Your task to perform on an android device: turn pop-ups on in chrome Image 0: 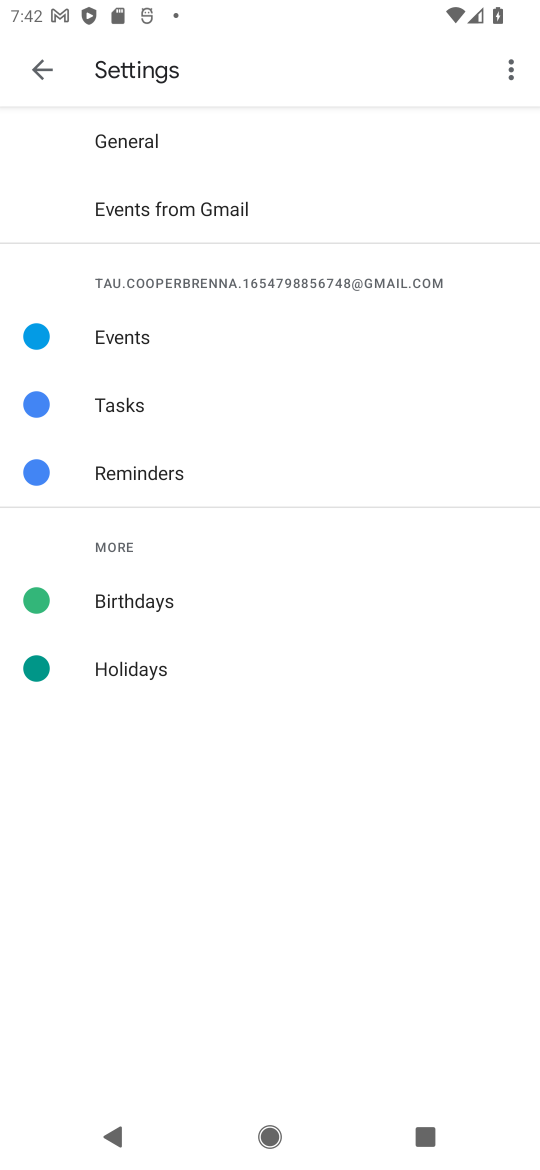
Step 0: press home button
Your task to perform on an android device: turn pop-ups on in chrome Image 1: 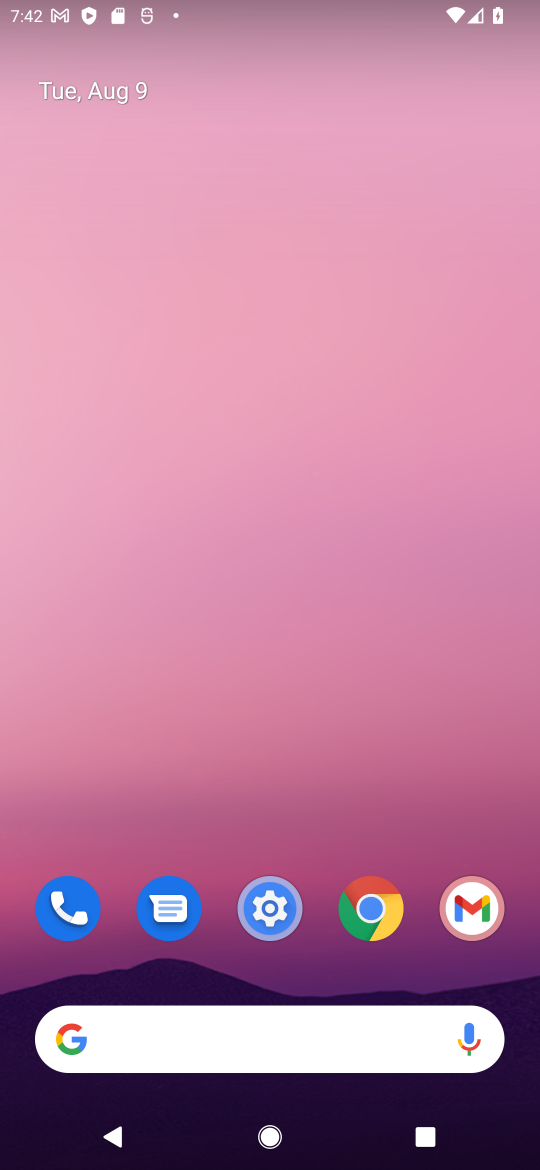
Step 1: click (372, 922)
Your task to perform on an android device: turn pop-ups on in chrome Image 2: 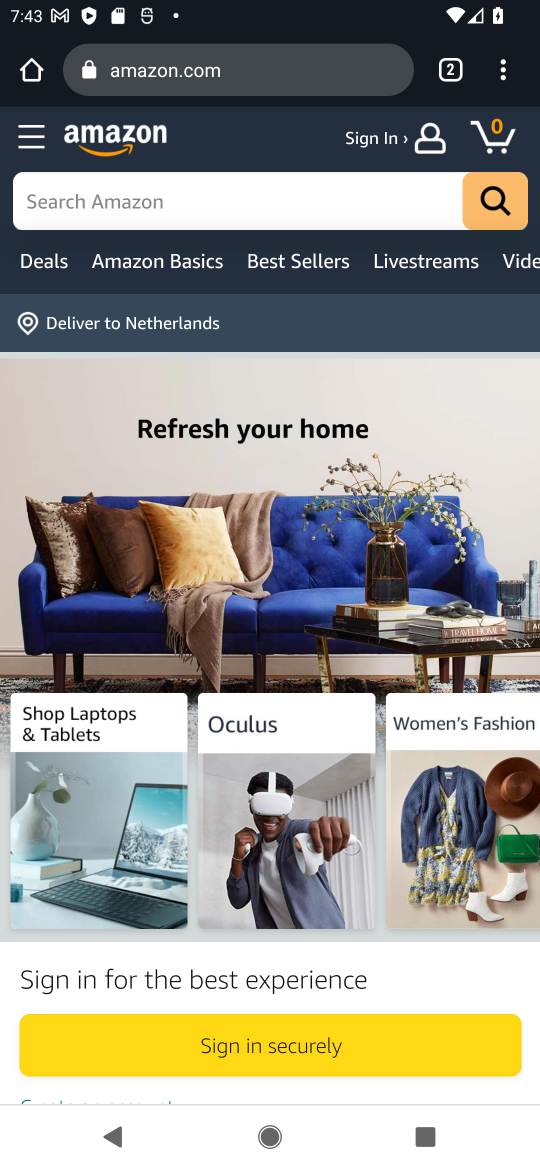
Step 2: click (502, 79)
Your task to perform on an android device: turn pop-ups on in chrome Image 3: 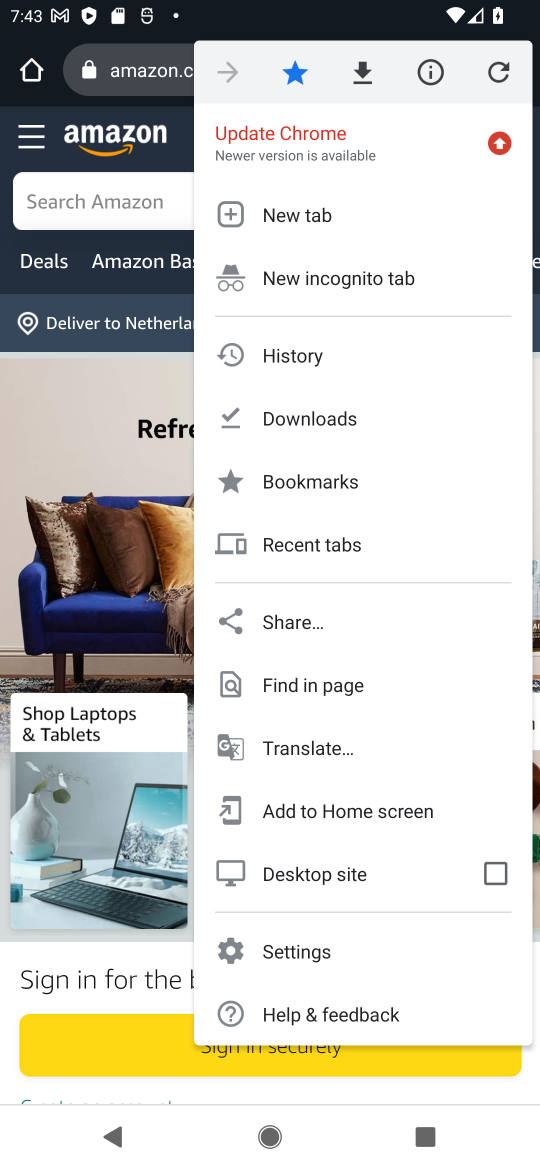
Step 3: click (299, 954)
Your task to perform on an android device: turn pop-ups on in chrome Image 4: 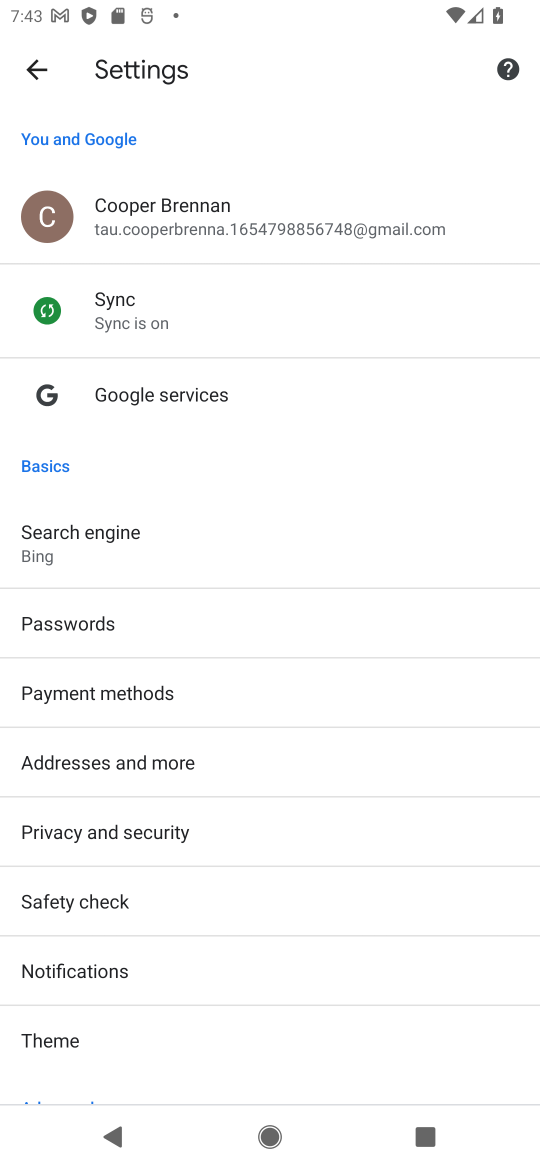
Step 4: drag from (110, 935) to (160, 347)
Your task to perform on an android device: turn pop-ups on in chrome Image 5: 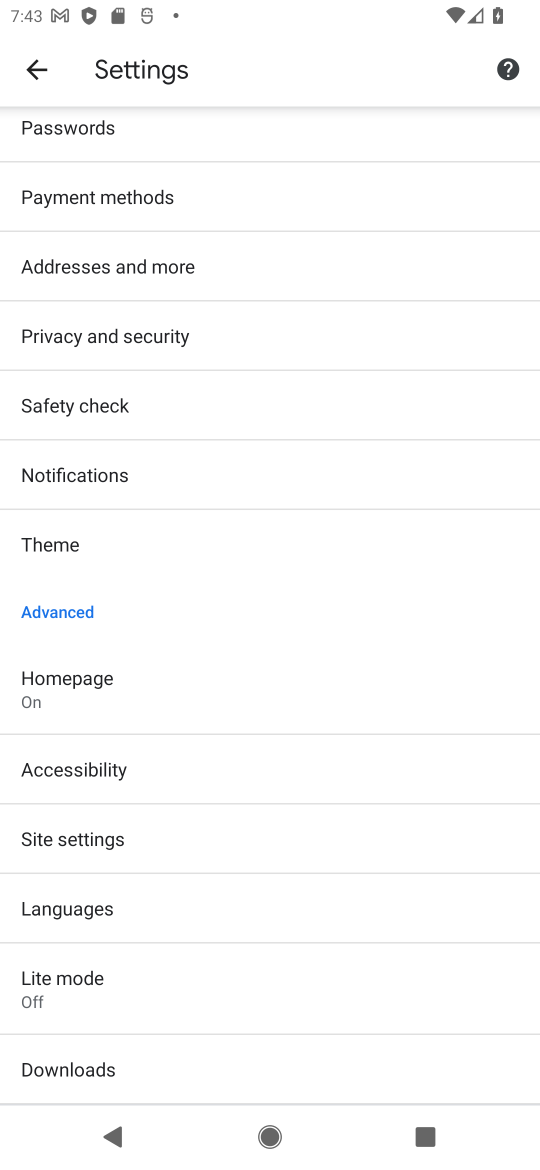
Step 5: click (109, 839)
Your task to perform on an android device: turn pop-ups on in chrome Image 6: 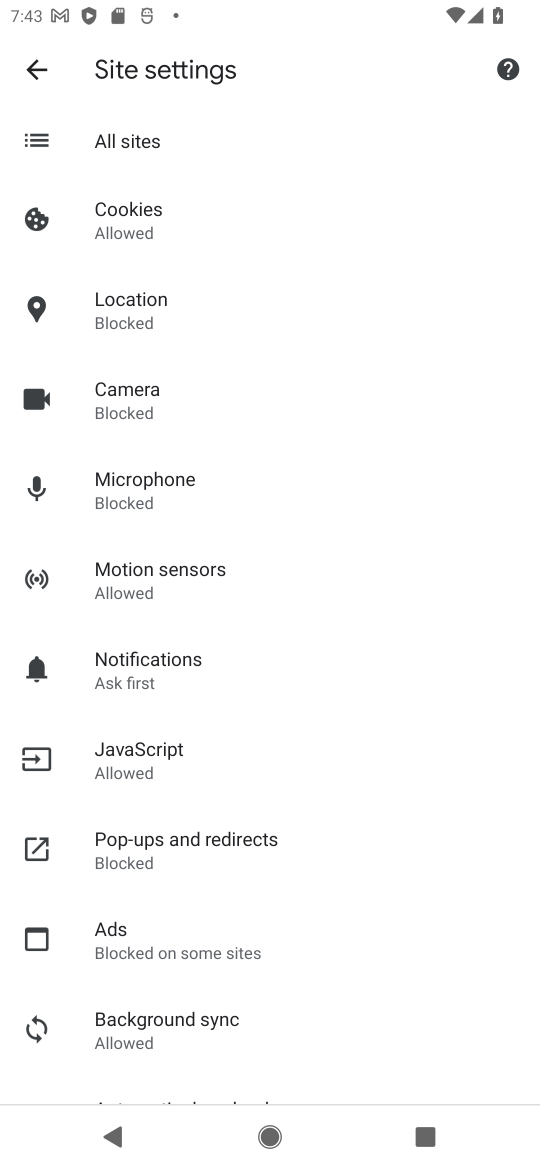
Step 6: click (121, 834)
Your task to perform on an android device: turn pop-ups on in chrome Image 7: 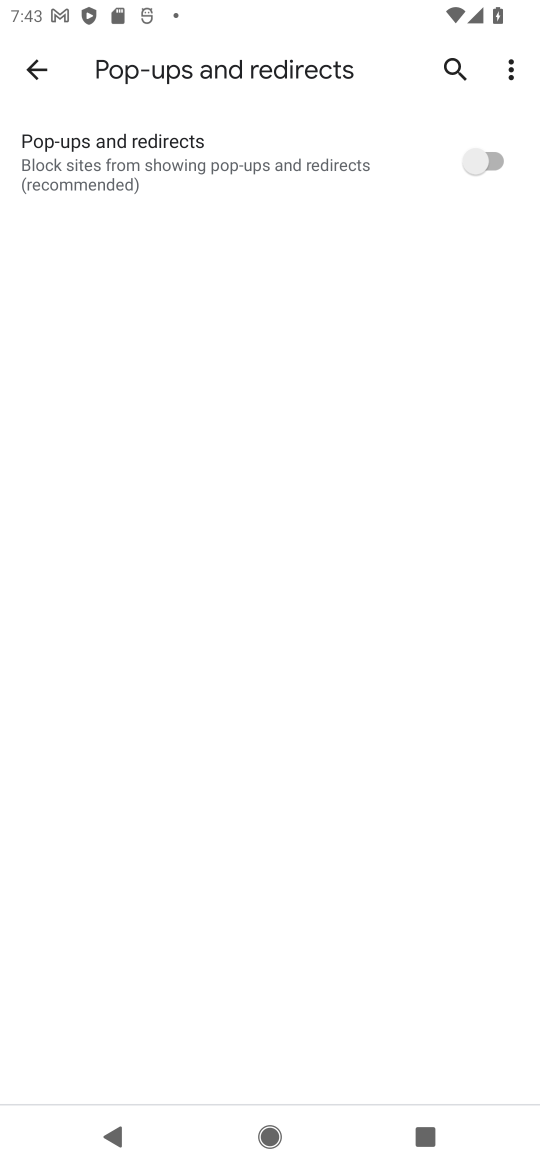
Step 7: click (493, 161)
Your task to perform on an android device: turn pop-ups on in chrome Image 8: 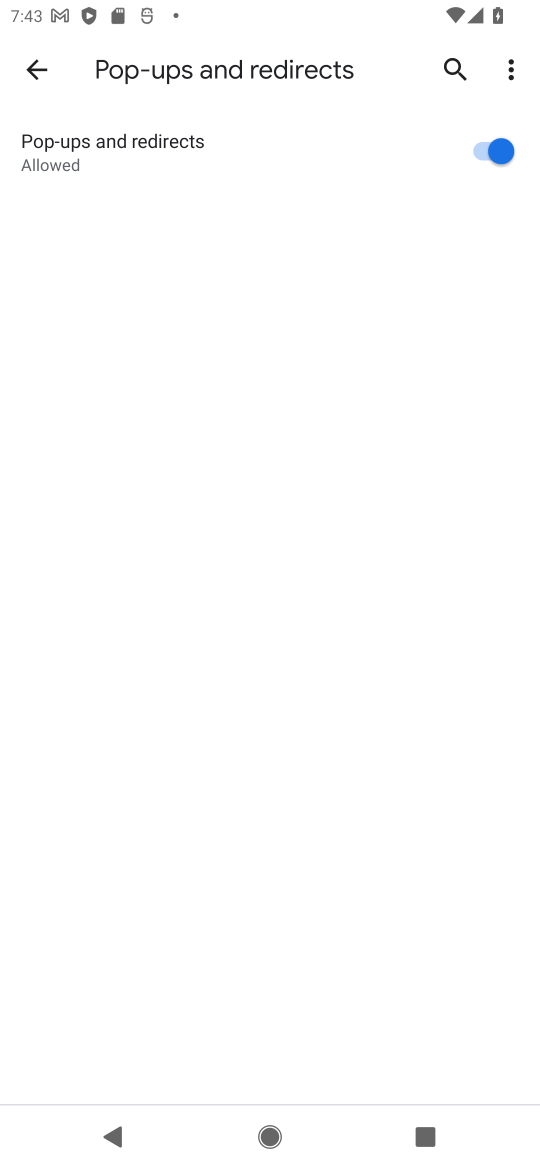
Step 8: task complete